Your task to perform on an android device: Search for usb-c on bestbuy.com, select the first entry, and add it to the cart. Image 0: 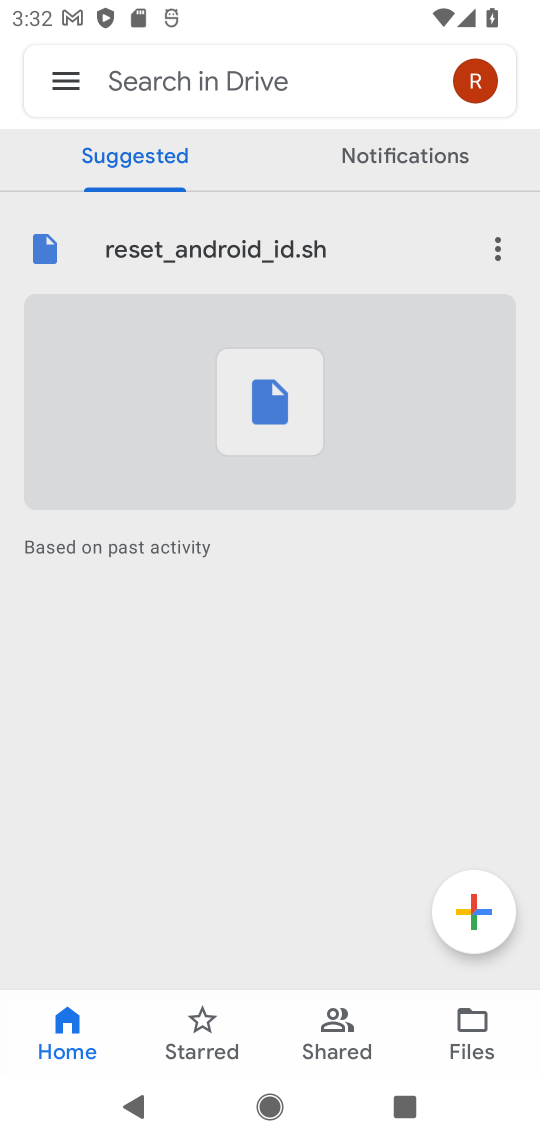
Step 0: press home button
Your task to perform on an android device: Search for usb-c on bestbuy.com, select the first entry, and add it to the cart. Image 1: 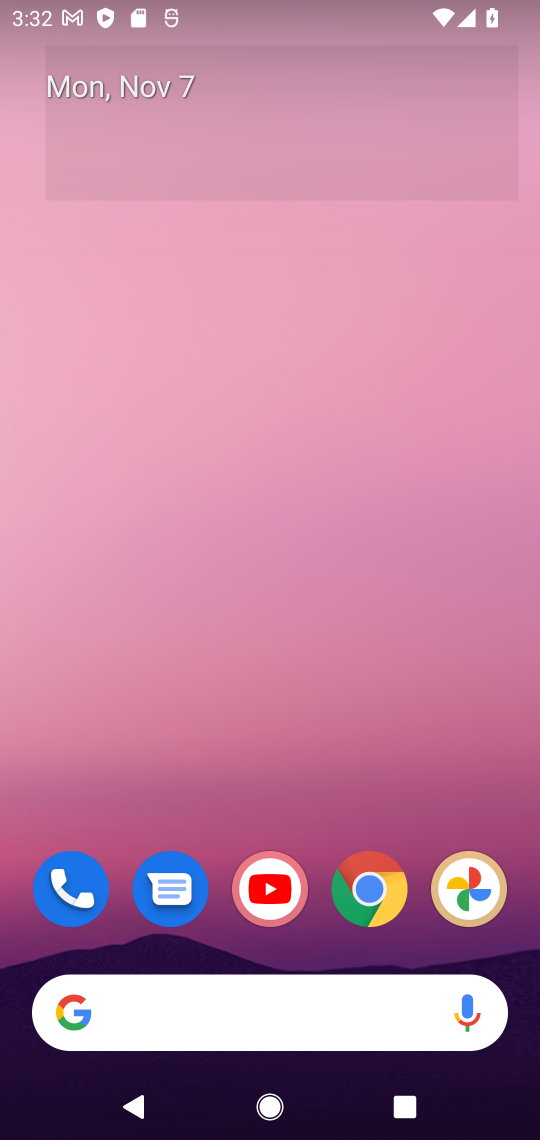
Step 1: click (373, 908)
Your task to perform on an android device: Search for usb-c on bestbuy.com, select the first entry, and add it to the cart. Image 2: 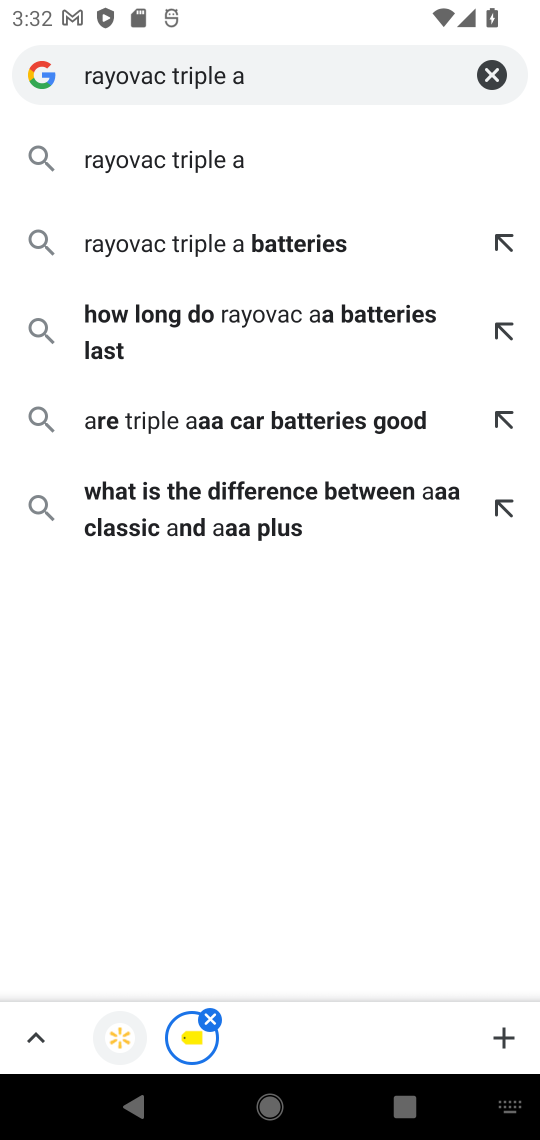
Step 2: click (491, 63)
Your task to perform on an android device: Search for usb-c on bestbuy.com, select the first entry, and add it to the cart. Image 3: 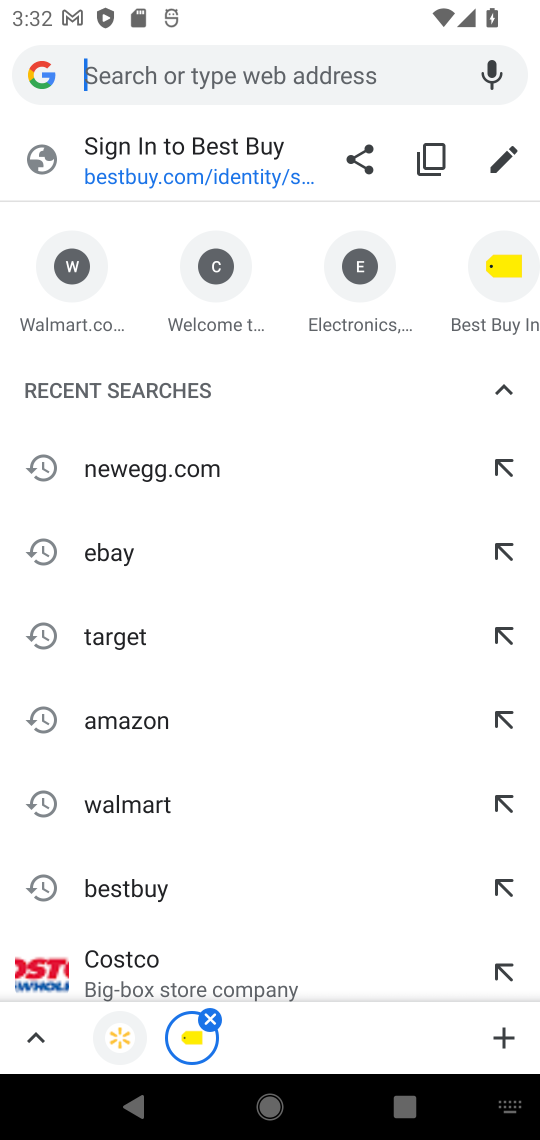
Step 3: type "bestbuy.com"
Your task to perform on an android device: Search for usb-c on bestbuy.com, select the first entry, and add it to the cart. Image 4: 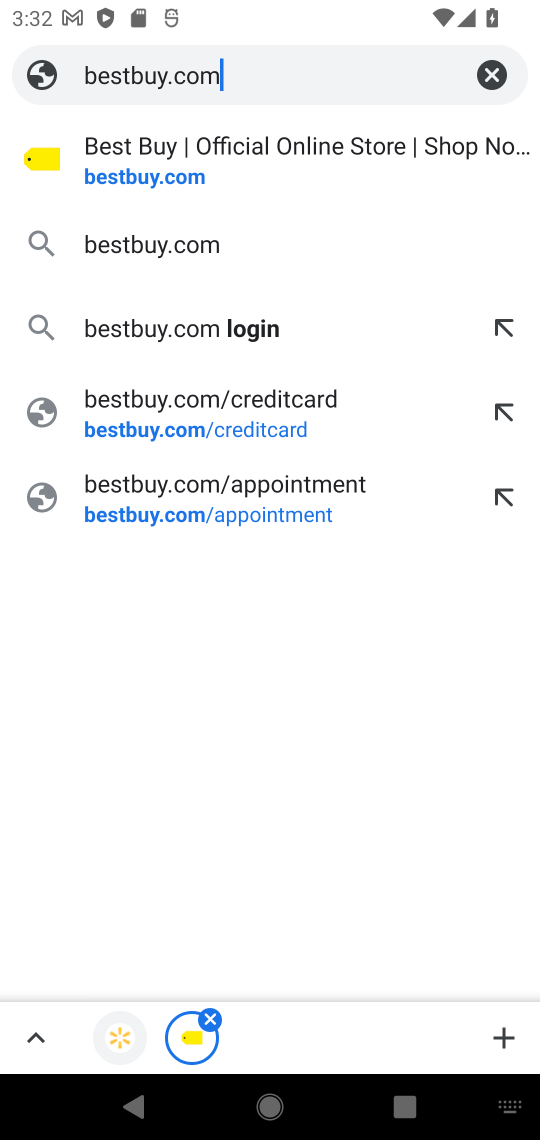
Step 4: click (302, 176)
Your task to perform on an android device: Search for usb-c on bestbuy.com, select the first entry, and add it to the cart. Image 5: 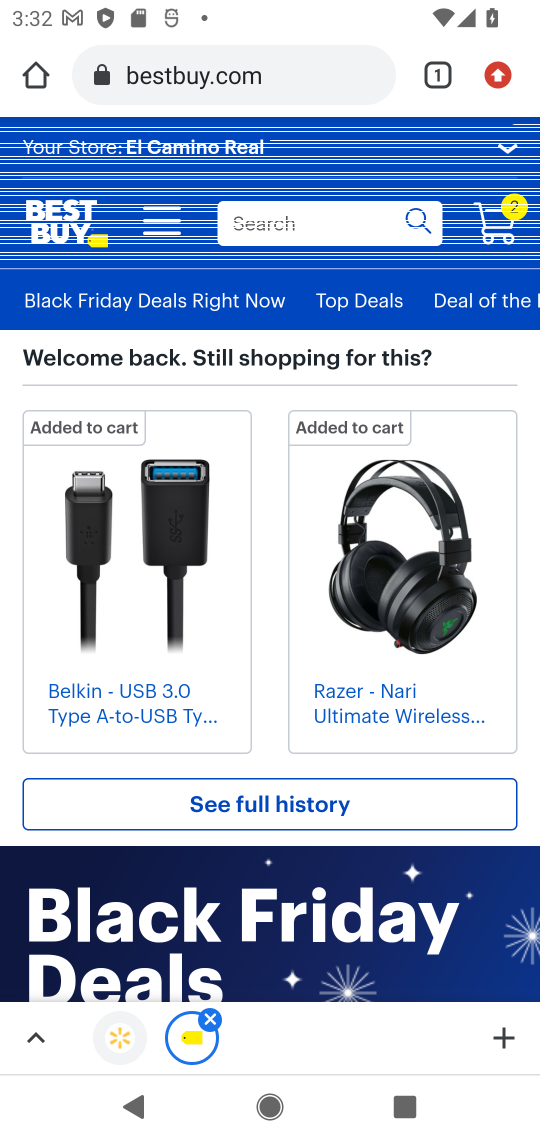
Step 5: click (301, 251)
Your task to perform on an android device: Search for usb-c on bestbuy.com, select the first entry, and add it to the cart. Image 6: 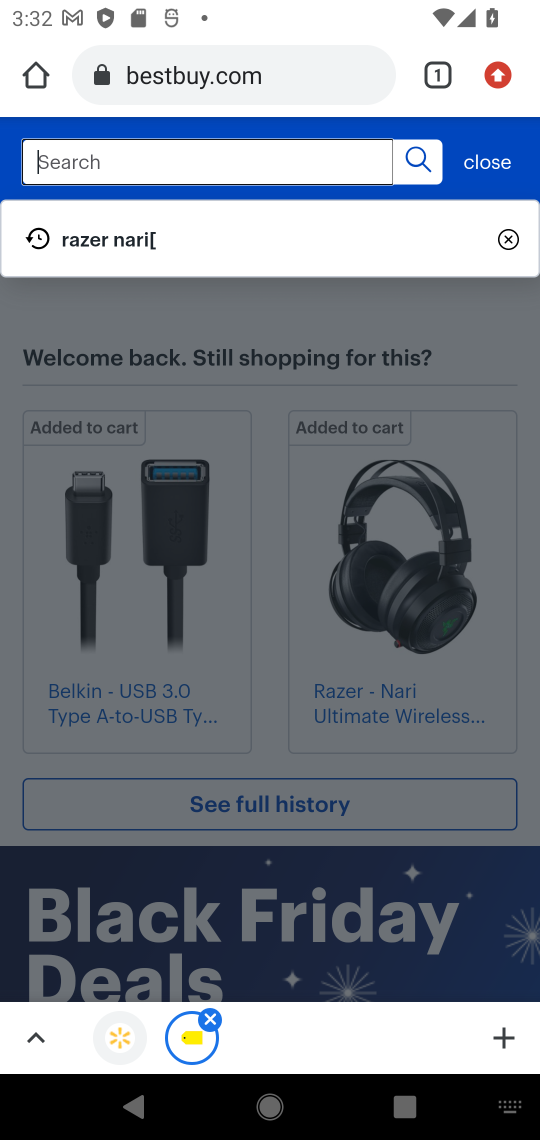
Step 6: type "usb c"
Your task to perform on an android device: Search for usb-c on bestbuy.com, select the first entry, and add it to the cart. Image 7: 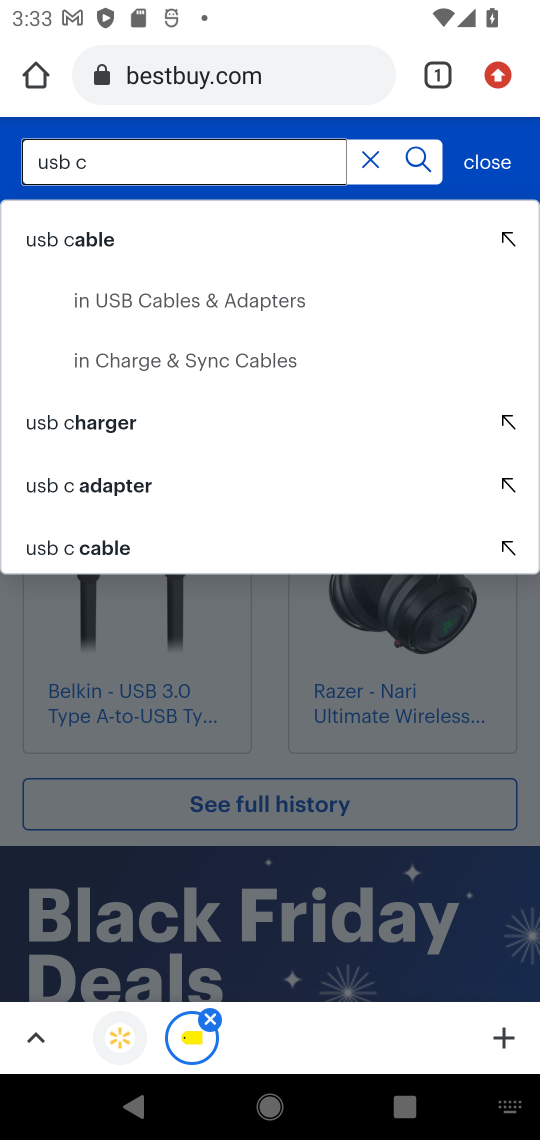
Step 7: press enter
Your task to perform on an android device: Search for usb-c on bestbuy.com, select the first entry, and add it to the cart. Image 8: 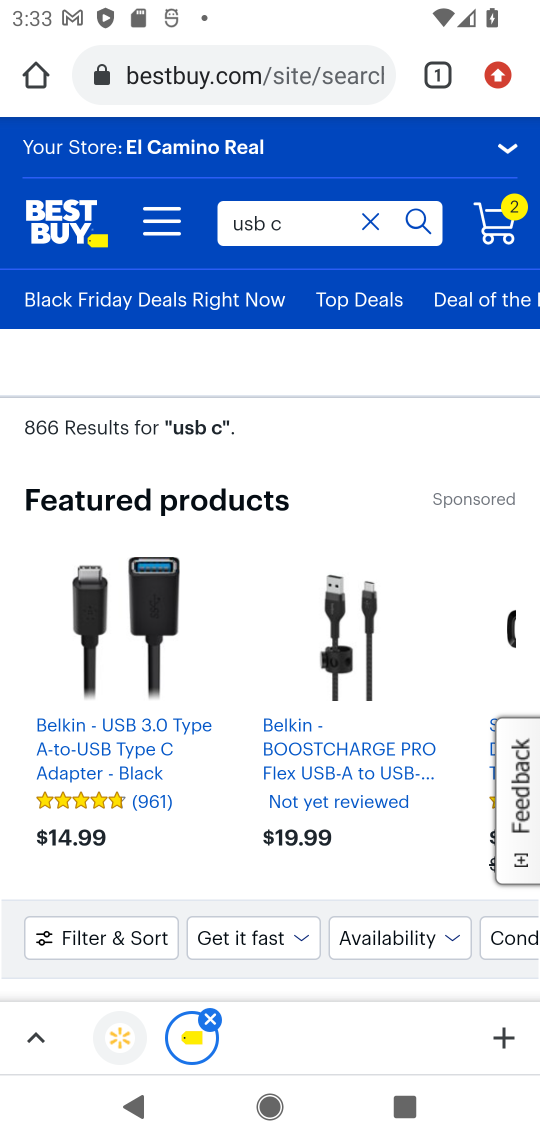
Step 8: click (118, 742)
Your task to perform on an android device: Search for usb-c on bestbuy.com, select the first entry, and add it to the cart. Image 9: 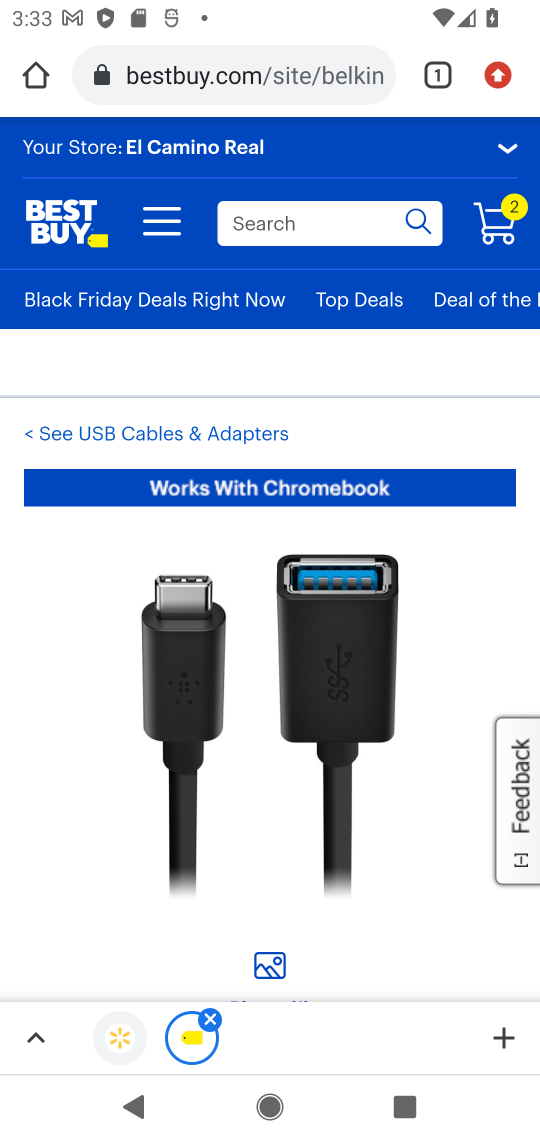
Step 9: drag from (344, 696) to (185, 6)
Your task to perform on an android device: Search for usb-c on bestbuy.com, select the first entry, and add it to the cart. Image 10: 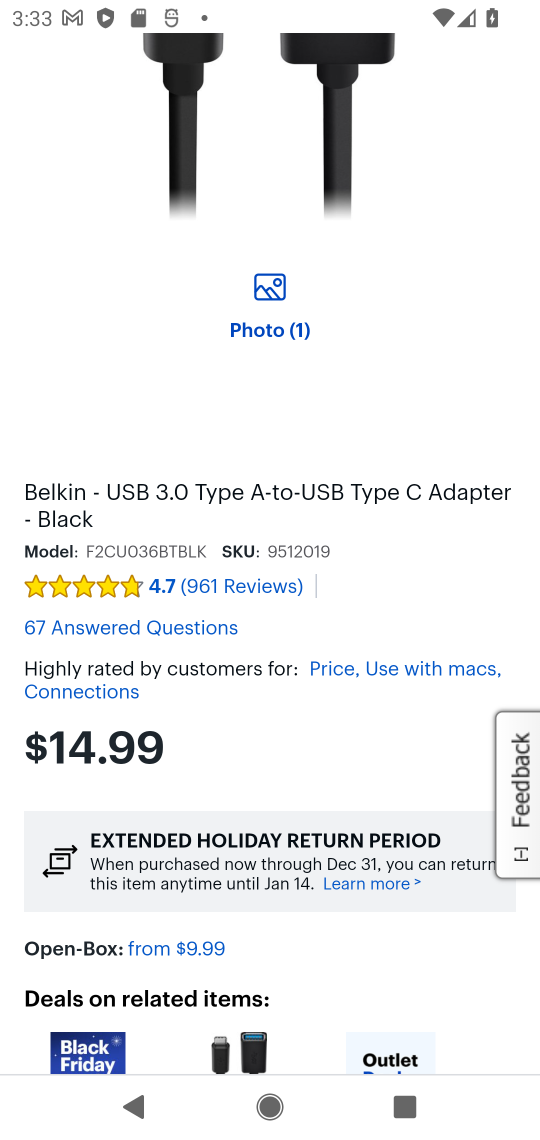
Step 10: drag from (255, 897) to (275, 341)
Your task to perform on an android device: Search for usb-c on bestbuy.com, select the first entry, and add it to the cart. Image 11: 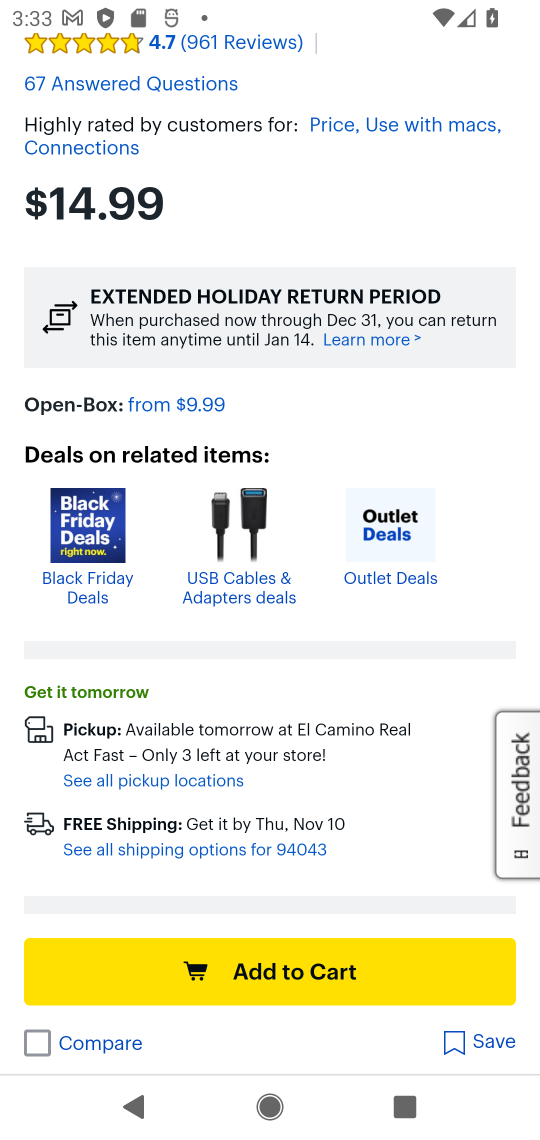
Step 11: click (303, 957)
Your task to perform on an android device: Search for usb-c on bestbuy.com, select the first entry, and add it to the cart. Image 12: 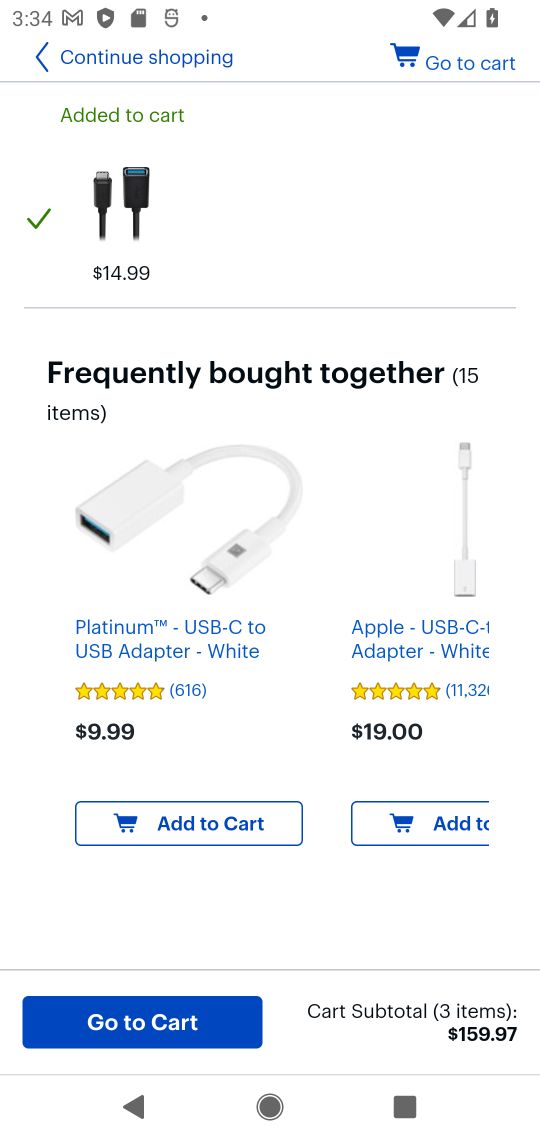
Step 12: click (203, 1027)
Your task to perform on an android device: Search for usb-c on bestbuy.com, select the first entry, and add it to the cart. Image 13: 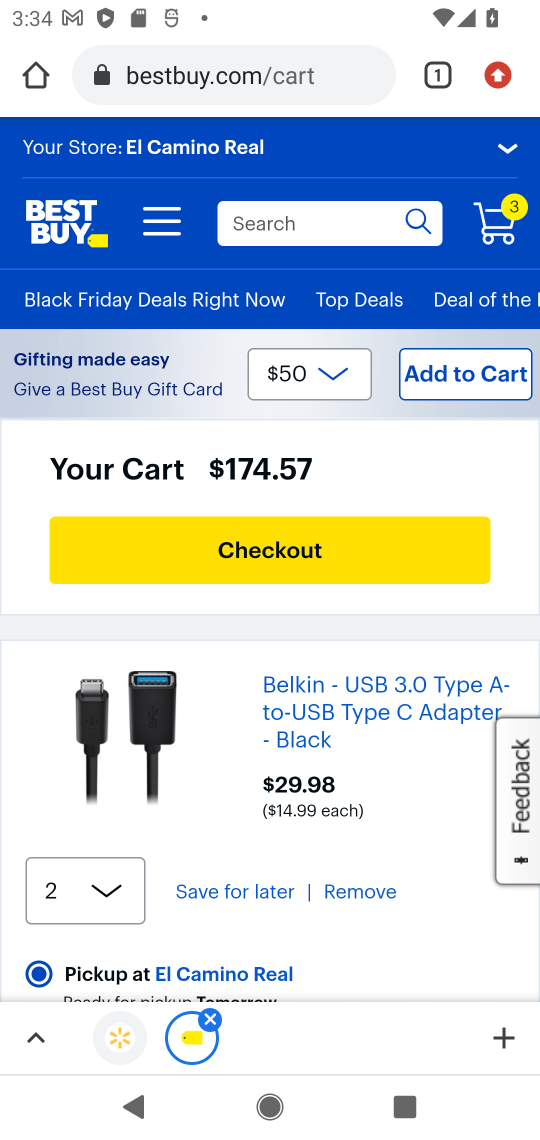
Step 13: click (316, 542)
Your task to perform on an android device: Search for usb-c on bestbuy.com, select the first entry, and add it to the cart. Image 14: 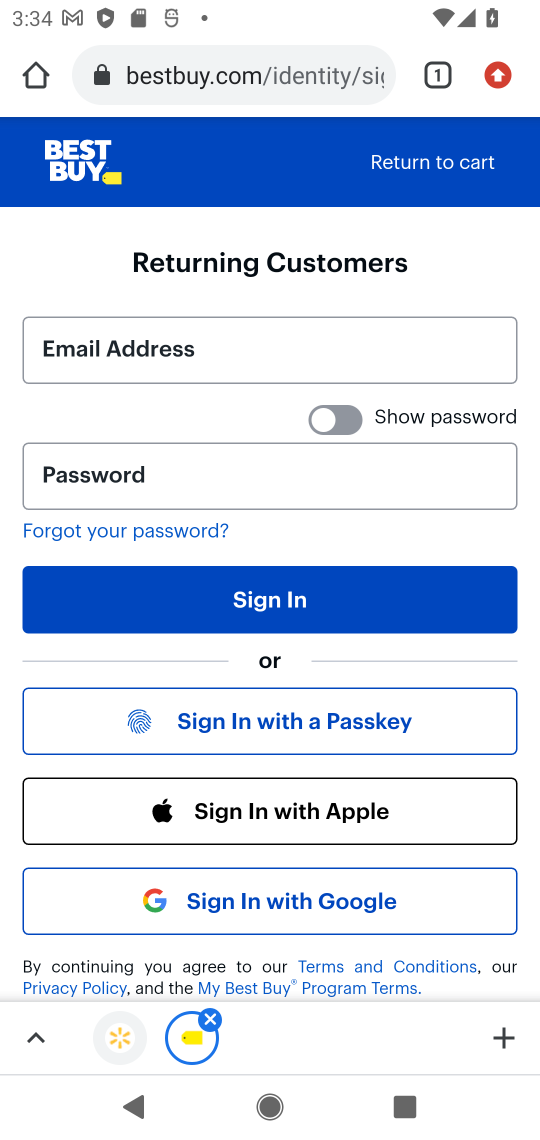
Step 14: task complete